Your task to perform on an android device: check storage Image 0: 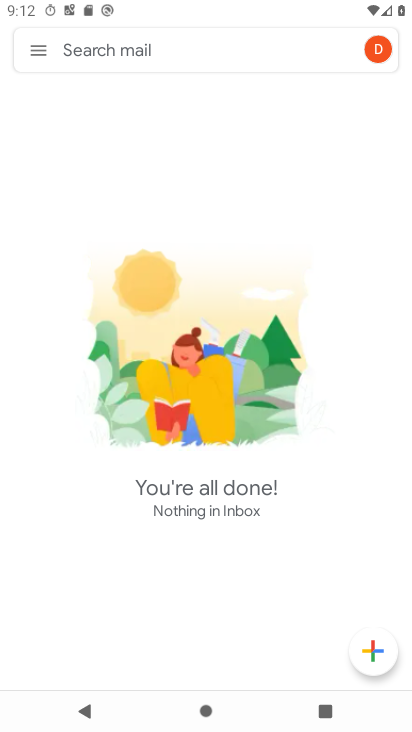
Step 0: press home button
Your task to perform on an android device: check storage Image 1: 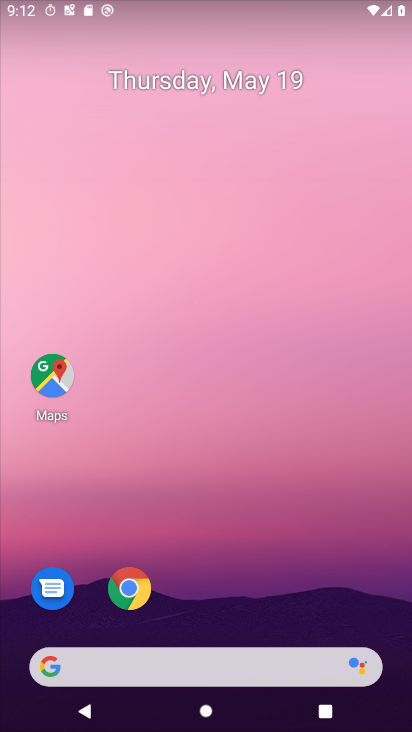
Step 1: drag from (170, 658) to (300, 163)
Your task to perform on an android device: check storage Image 2: 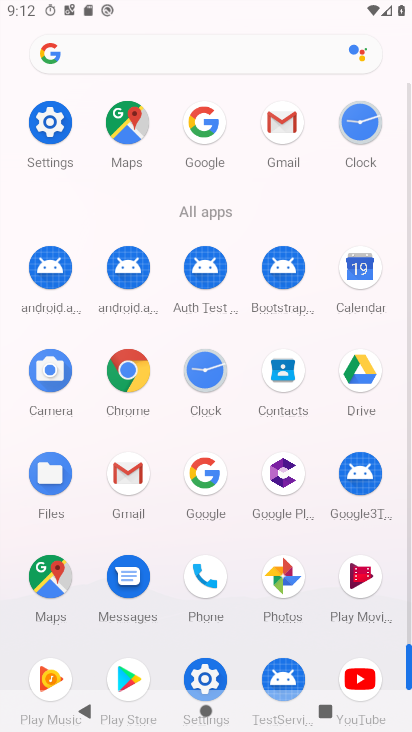
Step 2: click (54, 135)
Your task to perform on an android device: check storage Image 3: 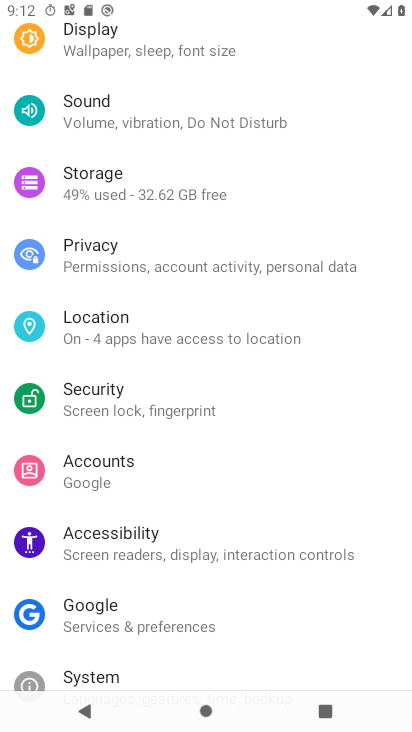
Step 3: click (131, 187)
Your task to perform on an android device: check storage Image 4: 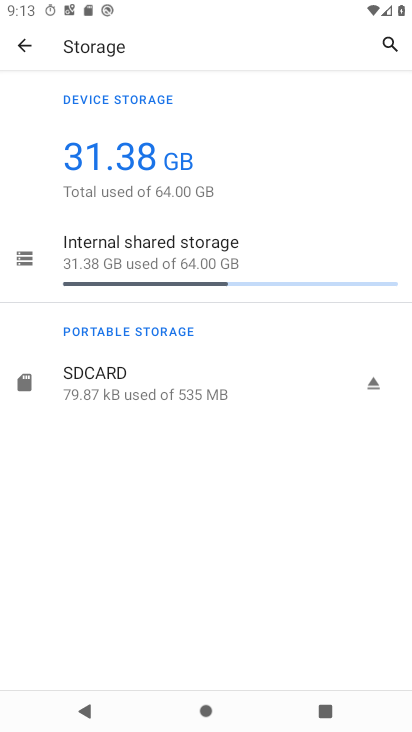
Step 4: task complete